Your task to perform on an android device: delete location history Image 0: 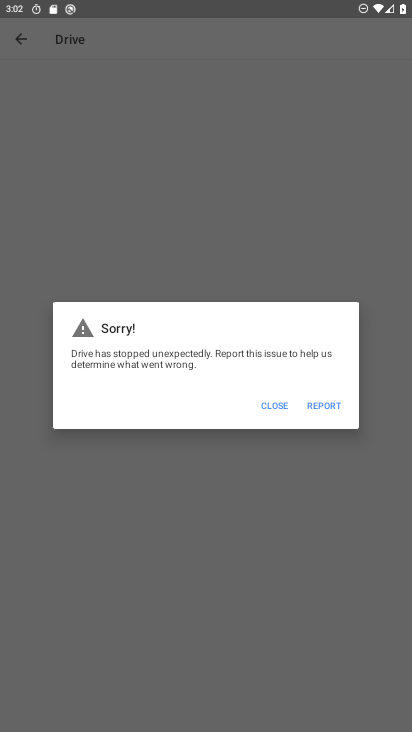
Step 0: press home button
Your task to perform on an android device: delete location history Image 1: 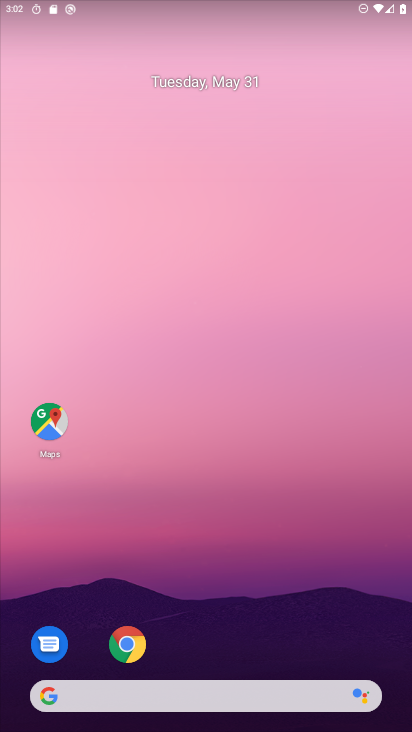
Step 1: drag from (13, 281) to (400, 276)
Your task to perform on an android device: delete location history Image 2: 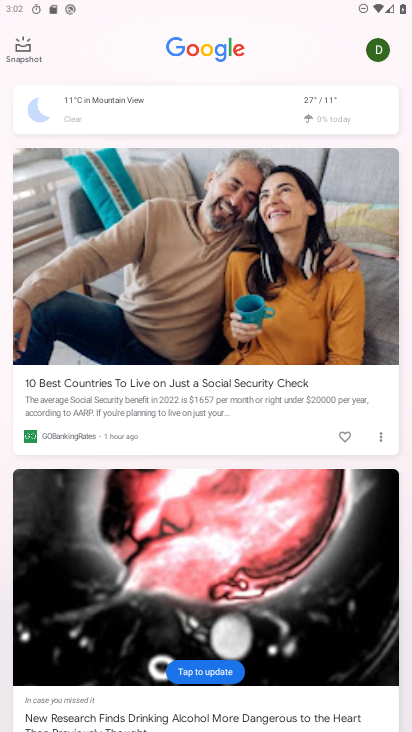
Step 2: click (204, 100)
Your task to perform on an android device: delete location history Image 3: 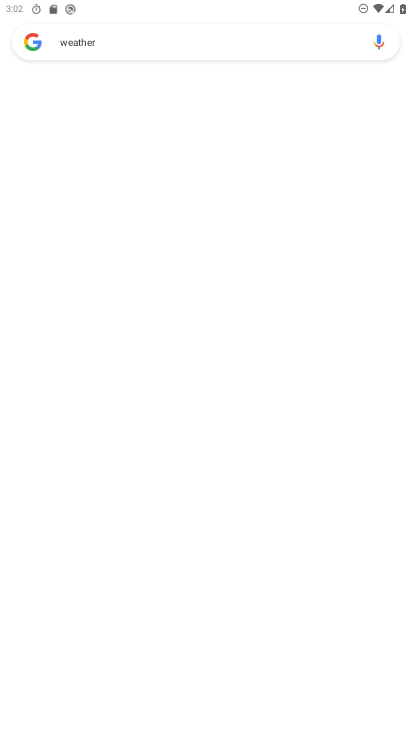
Step 3: click (322, 104)
Your task to perform on an android device: delete location history Image 4: 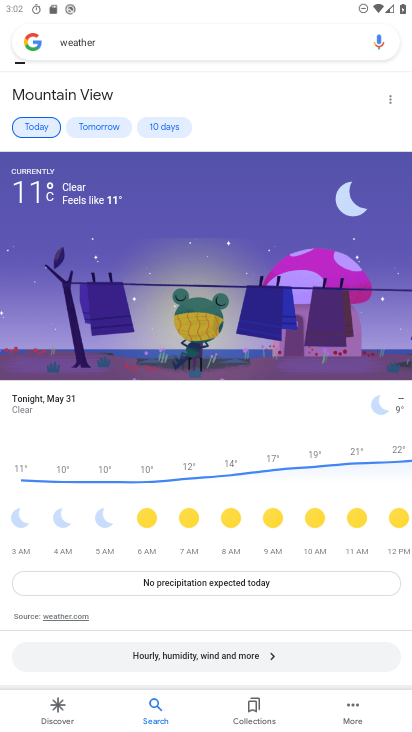
Step 4: press back button
Your task to perform on an android device: delete location history Image 5: 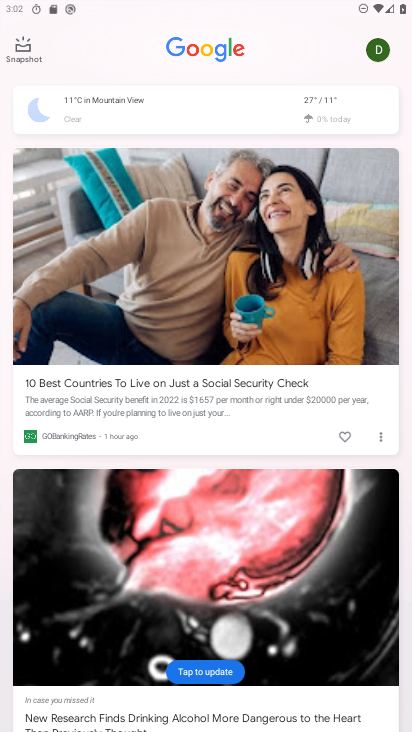
Step 5: press back button
Your task to perform on an android device: delete location history Image 6: 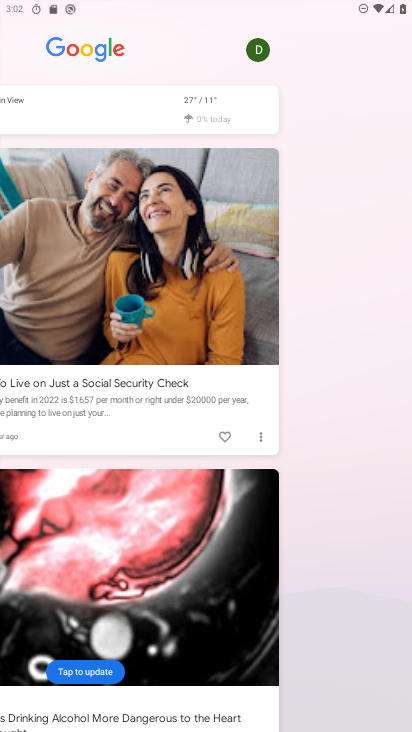
Step 6: press back button
Your task to perform on an android device: delete location history Image 7: 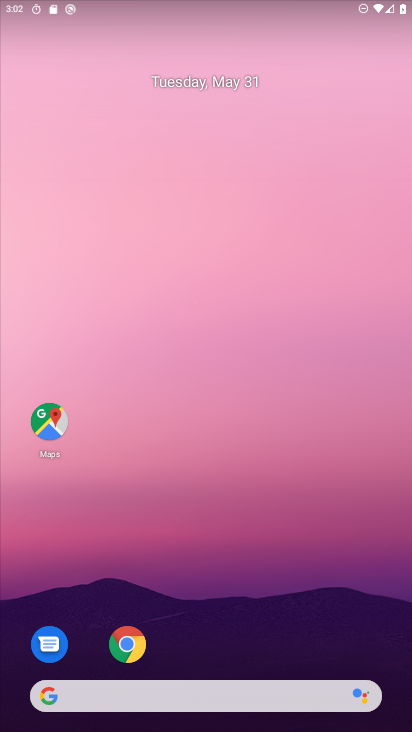
Step 7: drag from (388, 709) to (371, 516)
Your task to perform on an android device: delete location history Image 8: 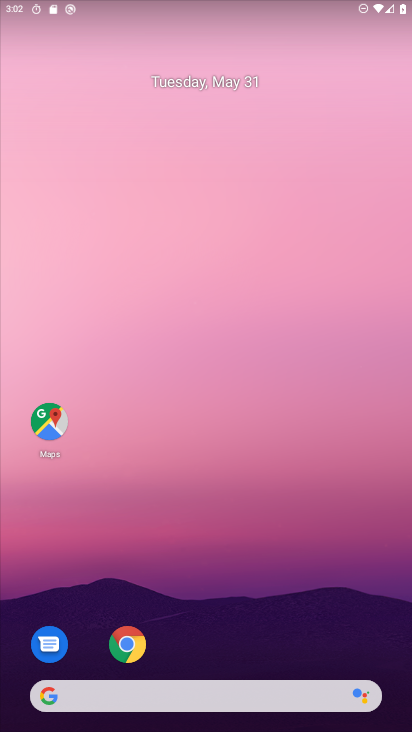
Step 8: click (35, 417)
Your task to perform on an android device: delete location history Image 9: 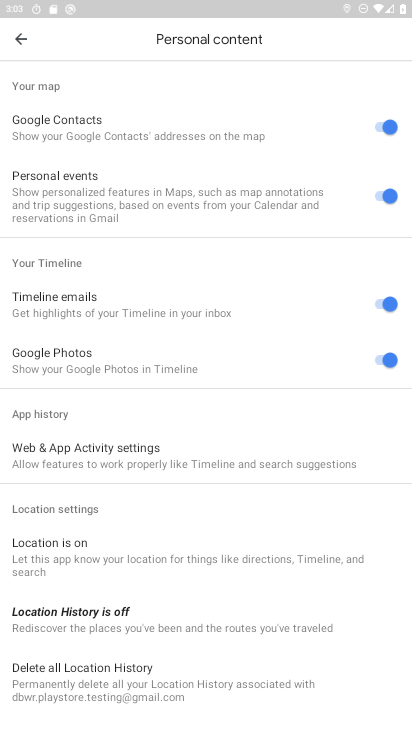
Step 9: click (101, 679)
Your task to perform on an android device: delete location history Image 10: 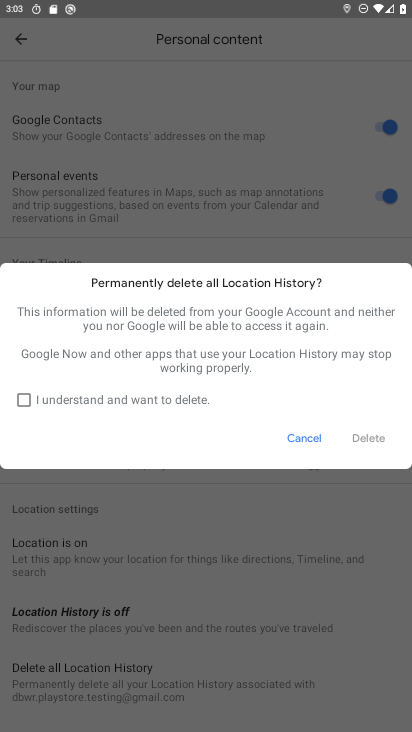
Step 10: click (26, 397)
Your task to perform on an android device: delete location history Image 11: 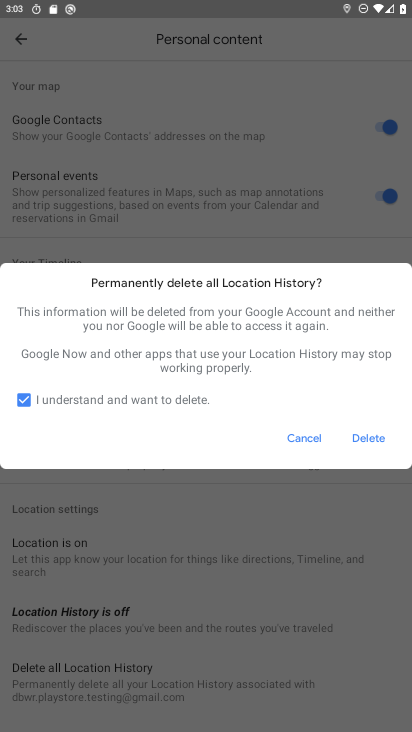
Step 11: click (360, 436)
Your task to perform on an android device: delete location history Image 12: 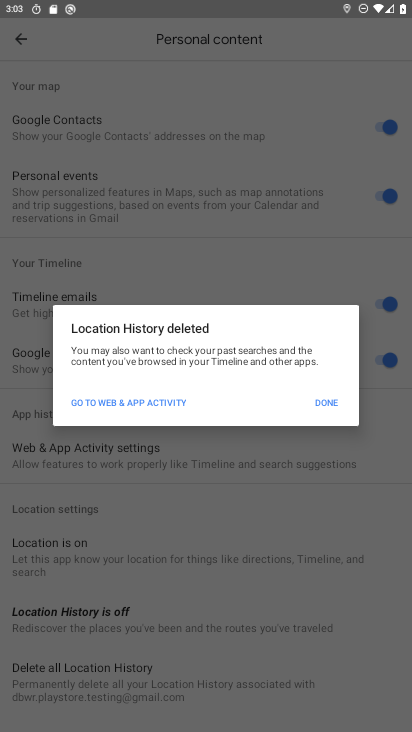
Step 12: click (327, 397)
Your task to perform on an android device: delete location history Image 13: 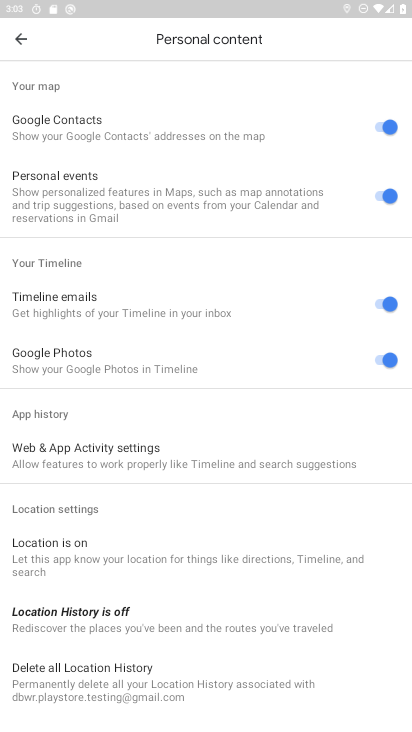
Step 13: click (98, 679)
Your task to perform on an android device: delete location history Image 14: 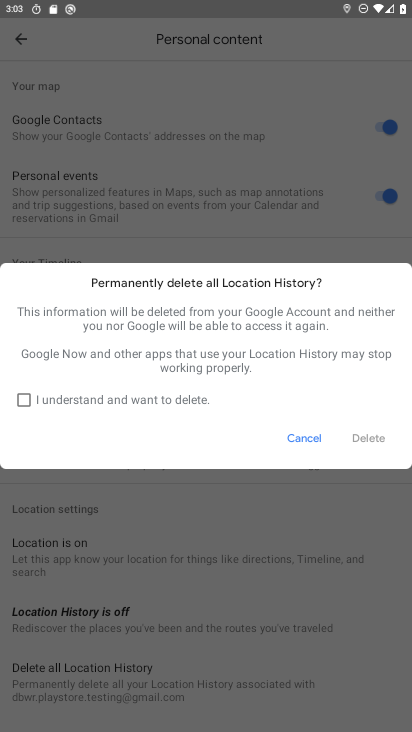
Step 14: click (12, 394)
Your task to perform on an android device: delete location history Image 15: 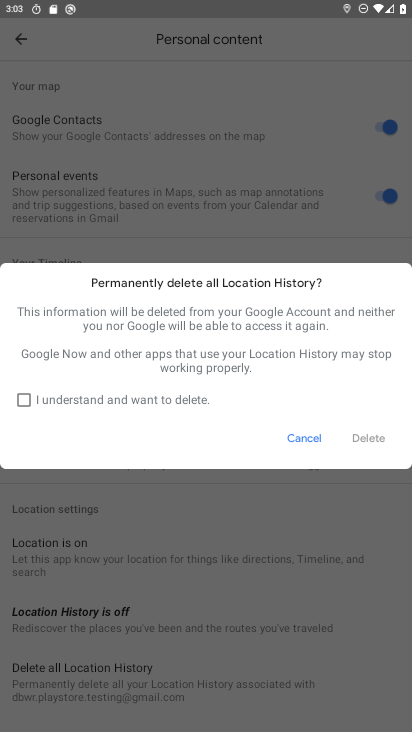
Step 15: click (23, 397)
Your task to perform on an android device: delete location history Image 16: 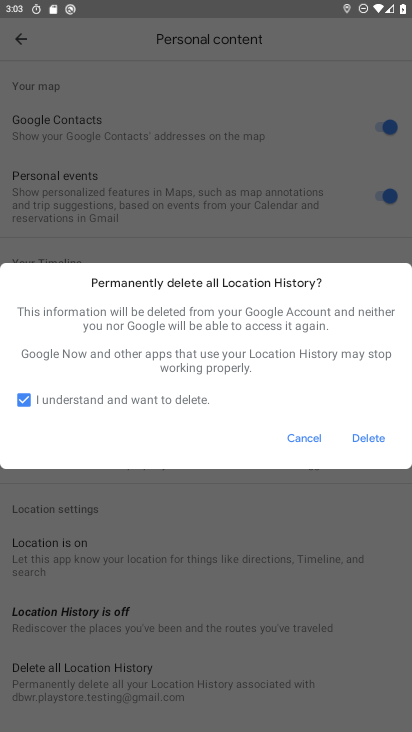
Step 16: click (380, 441)
Your task to perform on an android device: delete location history Image 17: 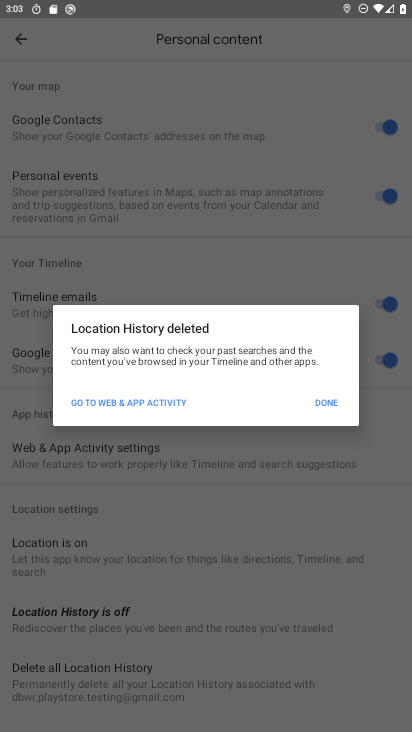
Step 17: task complete